Your task to perform on an android device: Go to calendar. Show me events next week Image 0: 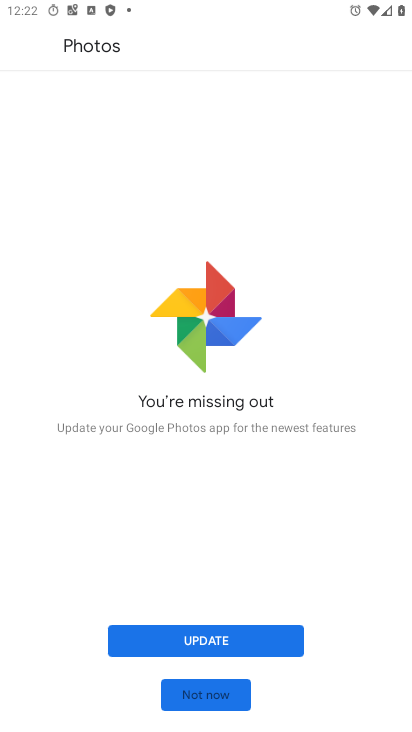
Step 0: press home button
Your task to perform on an android device: Go to calendar. Show me events next week Image 1: 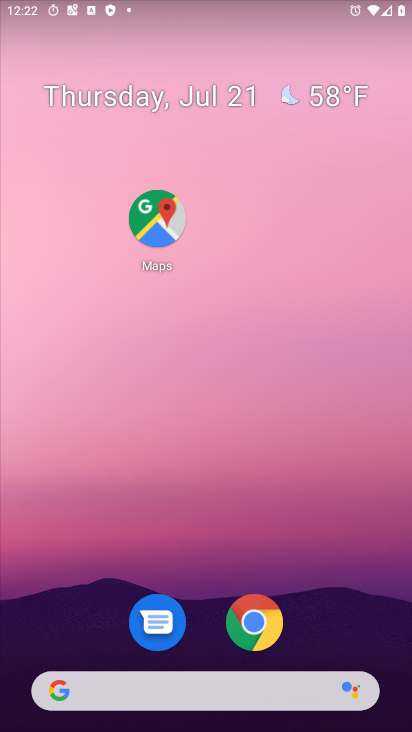
Step 1: drag from (6, 711) to (178, 267)
Your task to perform on an android device: Go to calendar. Show me events next week Image 2: 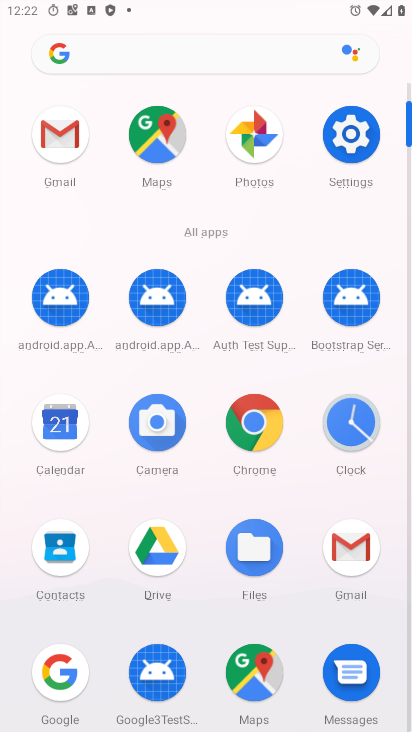
Step 2: click (72, 557)
Your task to perform on an android device: Go to calendar. Show me events next week Image 3: 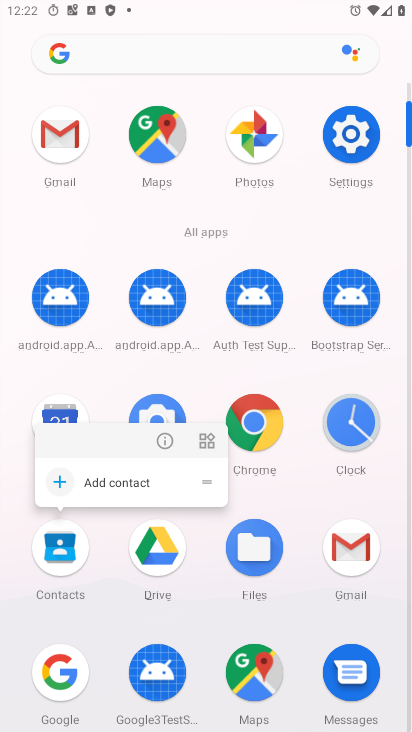
Step 3: click (69, 420)
Your task to perform on an android device: Go to calendar. Show me events next week Image 4: 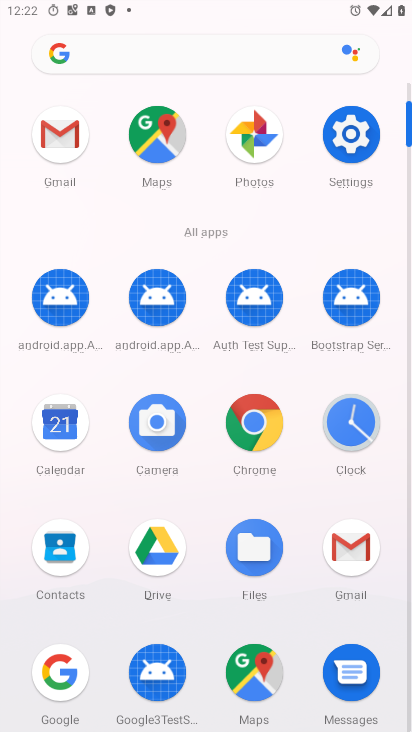
Step 4: click (69, 441)
Your task to perform on an android device: Go to calendar. Show me events next week Image 5: 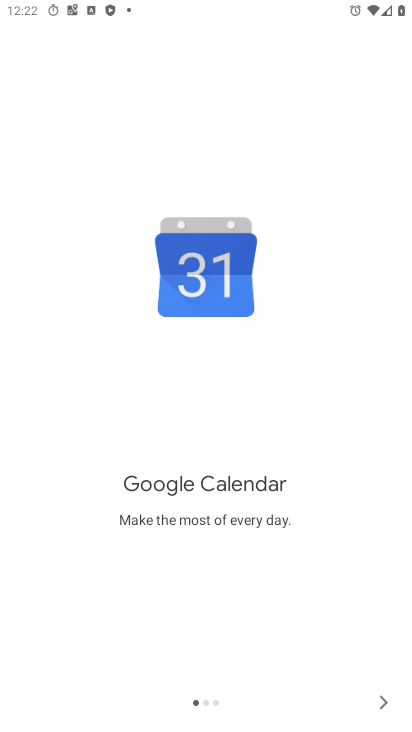
Step 5: click (383, 701)
Your task to perform on an android device: Go to calendar. Show me events next week Image 6: 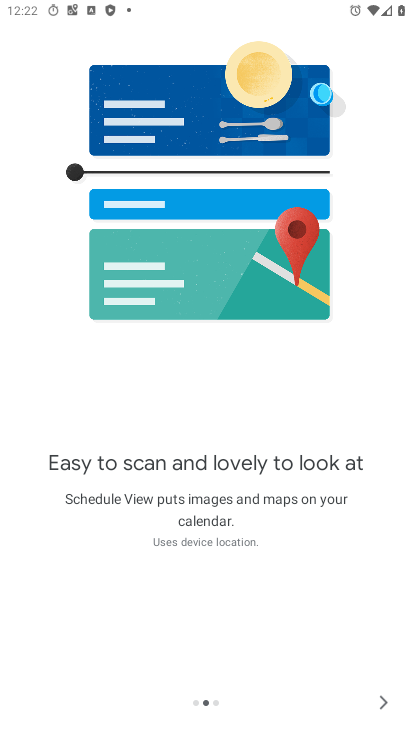
Step 6: click (375, 700)
Your task to perform on an android device: Go to calendar. Show me events next week Image 7: 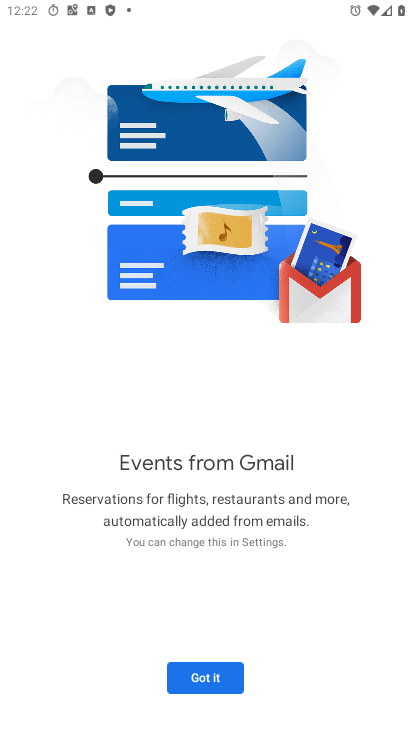
Step 7: click (176, 673)
Your task to perform on an android device: Go to calendar. Show me events next week Image 8: 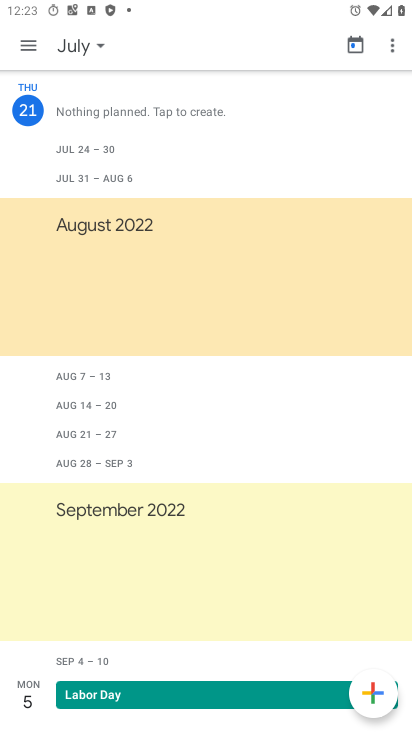
Step 8: click (102, 52)
Your task to perform on an android device: Go to calendar. Show me events next week Image 9: 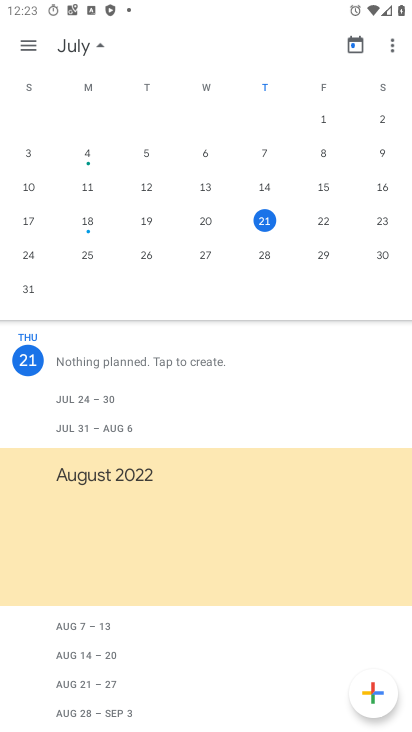
Step 9: task complete